Your task to perform on an android device: open wifi settings Image 0: 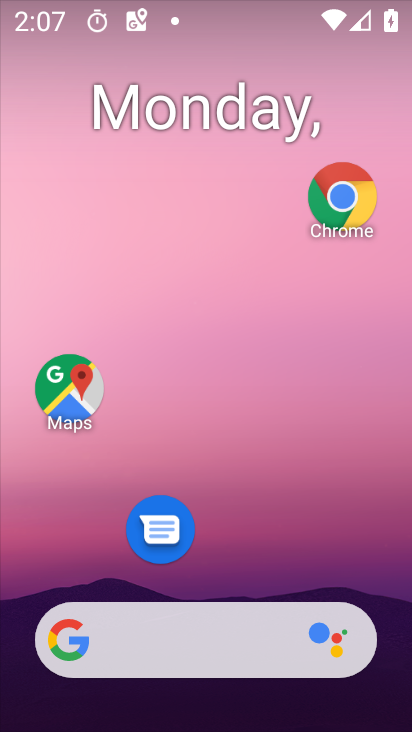
Step 0: drag from (242, 591) to (159, 87)
Your task to perform on an android device: open wifi settings Image 1: 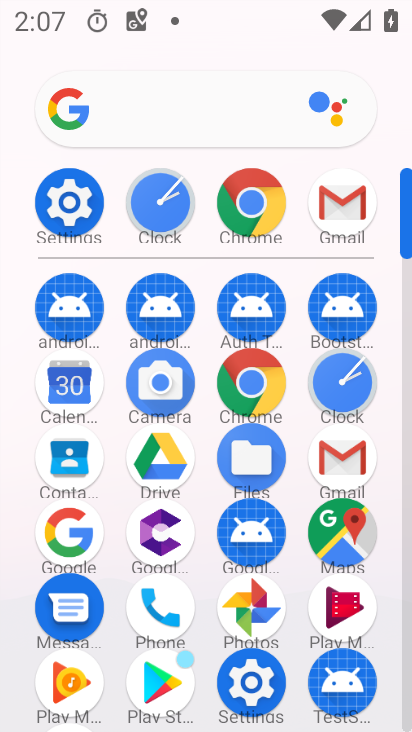
Step 1: click (61, 202)
Your task to perform on an android device: open wifi settings Image 2: 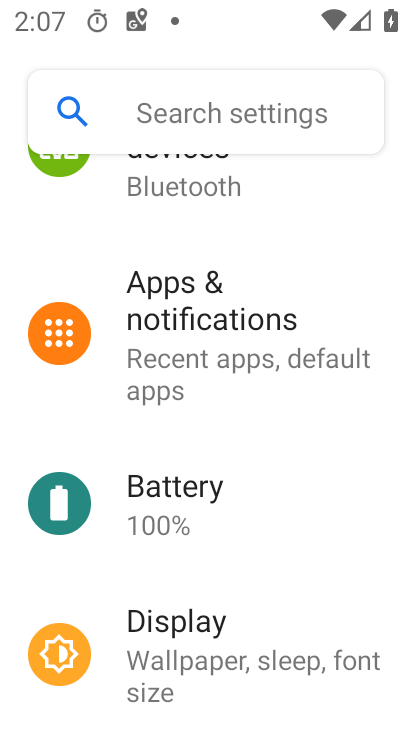
Step 2: drag from (190, 285) to (205, 592)
Your task to perform on an android device: open wifi settings Image 3: 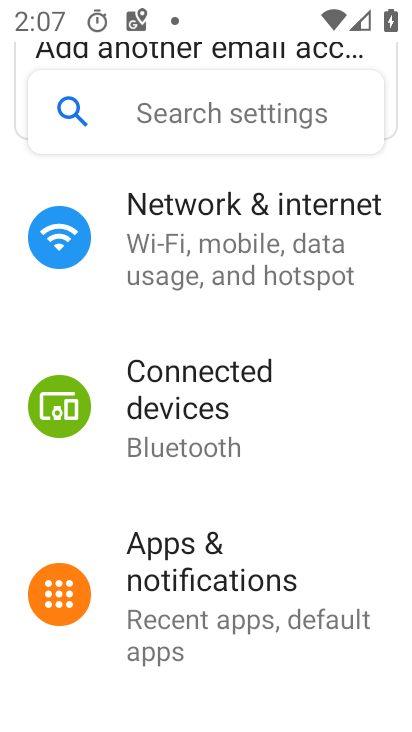
Step 3: click (212, 247)
Your task to perform on an android device: open wifi settings Image 4: 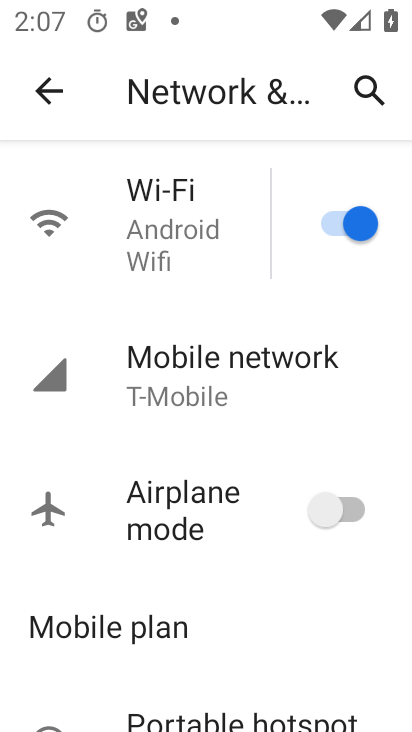
Step 4: click (165, 234)
Your task to perform on an android device: open wifi settings Image 5: 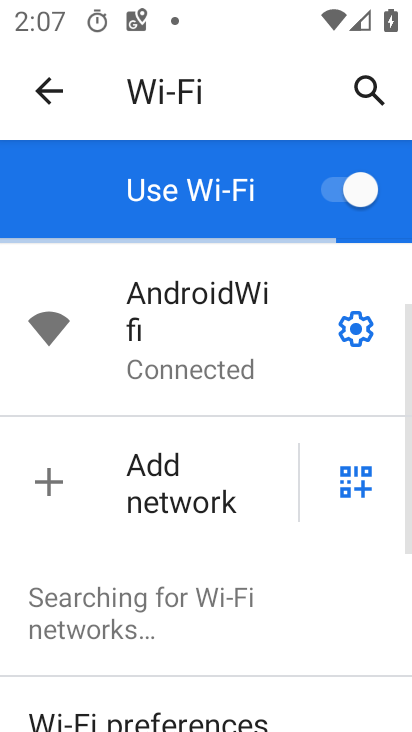
Step 5: task complete